Your task to perform on an android device: Is it going to rain today? Image 0: 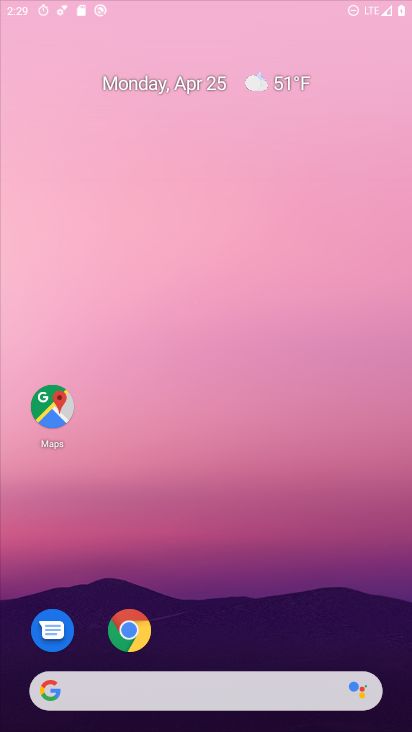
Step 0: click (287, 214)
Your task to perform on an android device: Is it going to rain today? Image 1: 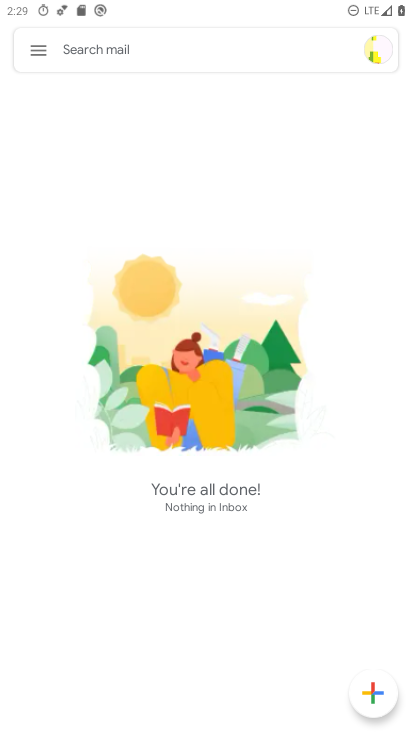
Step 1: drag from (241, 339) to (372, 59)
Your task to perform on an android device: Is it going to rain today? Image 2: 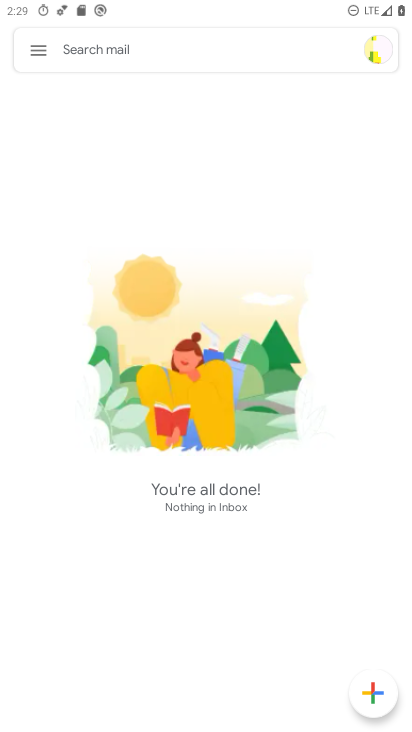
Step 2: drag from (156, 574) to (258, 324)
Your task to perform on an android device: Is it going to rain today? Image 3: 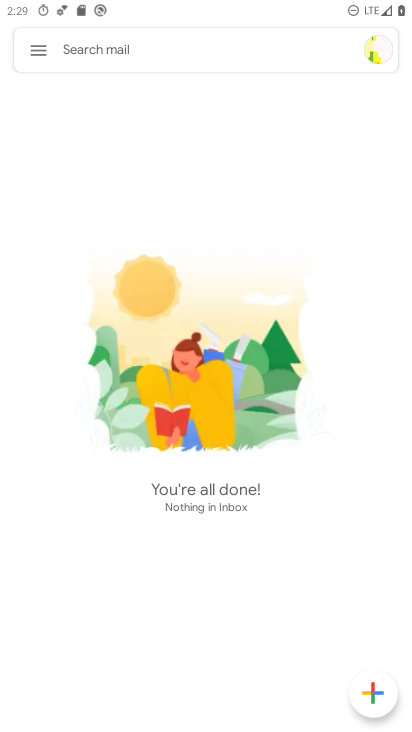
Step 3: press home button
Your task to perform on an android device: Is it going to rain today? Image 4: 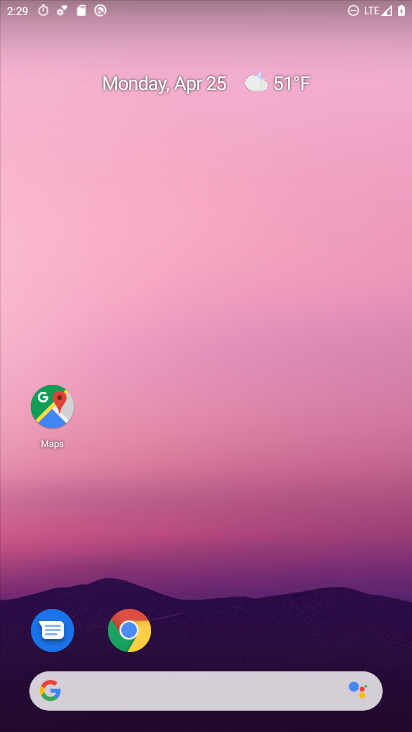
Step 4: drag from (232, 581) to (276, 222)
Your task to perform on an android device: Is it going to rain today? Image 5: 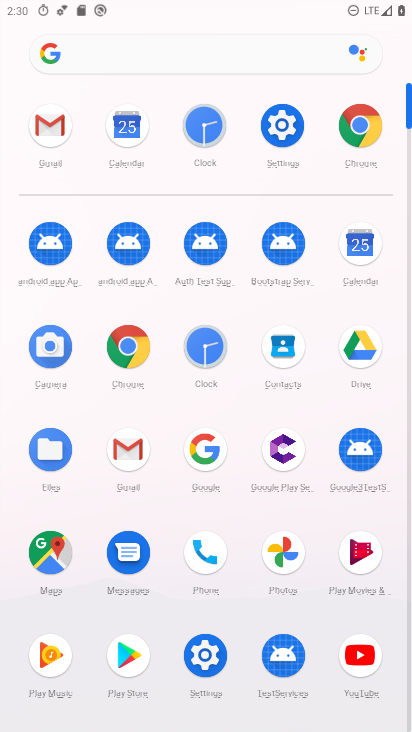
Step 5: click (177, 62)
Your task to perform on an android device: Is it going to rain today? Image 6: 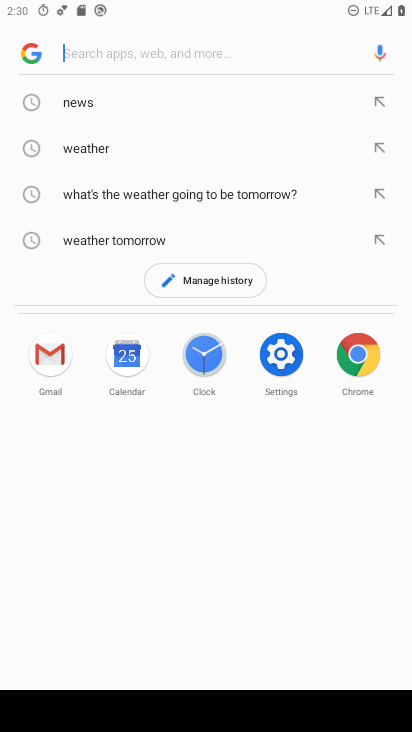
Step 6: click (92, 45)
Your task to perform on an android device: Is it going to rain today? Image 7: 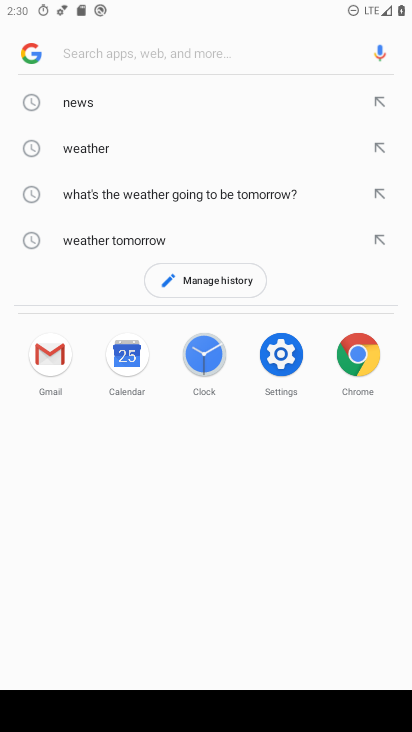
Step 7: type "rain today"
Your task to perform on an android device: Is it going to rain today? Image 8: 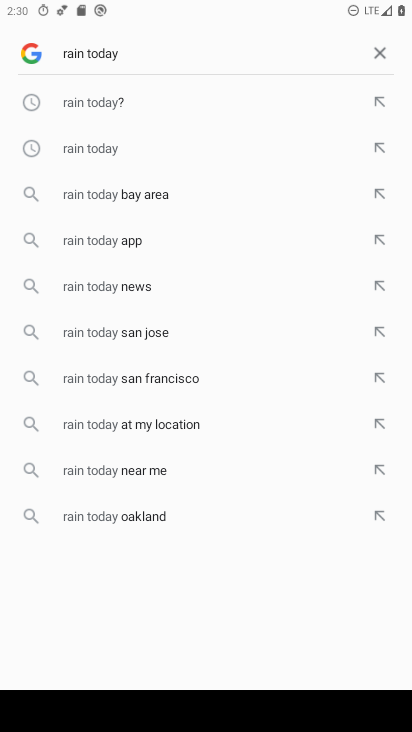
Step 8: click (96, 111)
Your task to perform on an android device: Is it going to rain today? Image 9: 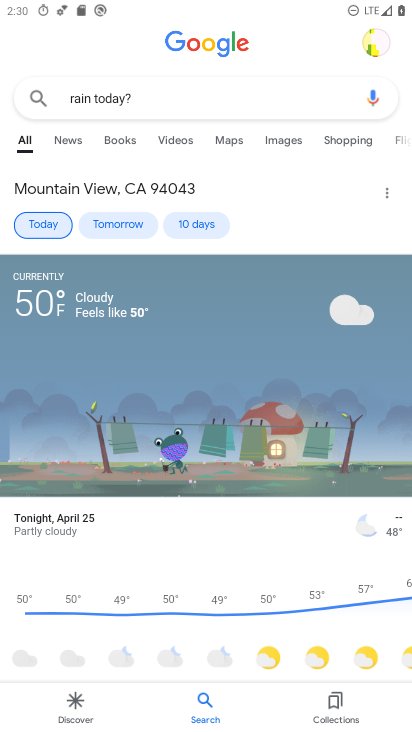
Step 9: task complete